Your task to perform on an android device: refresh tabs in the chrome app Image 0: 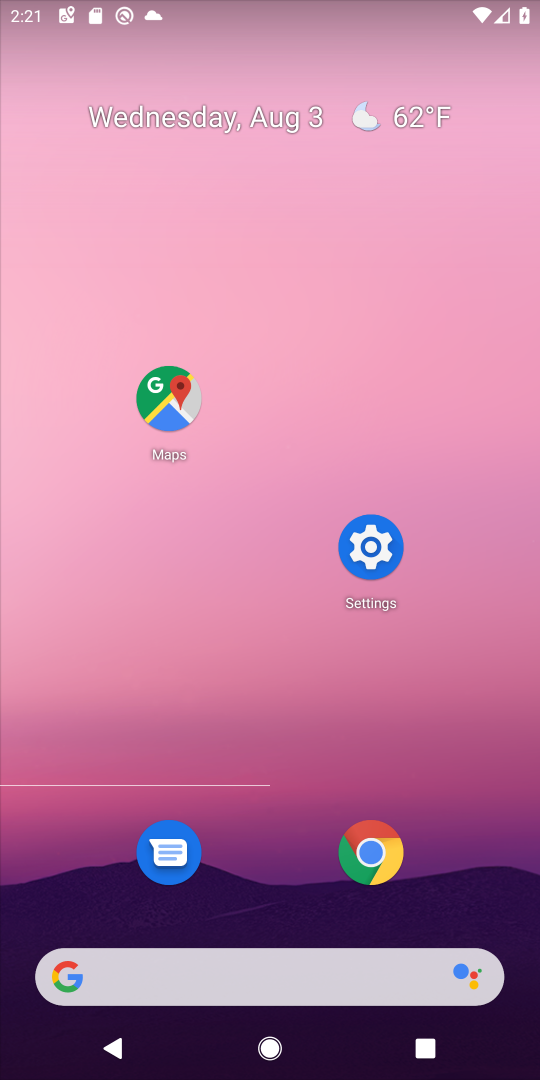
Step 0: press home button
Your task to perform on an android device: refresh tabs in the chrome app Image 1: 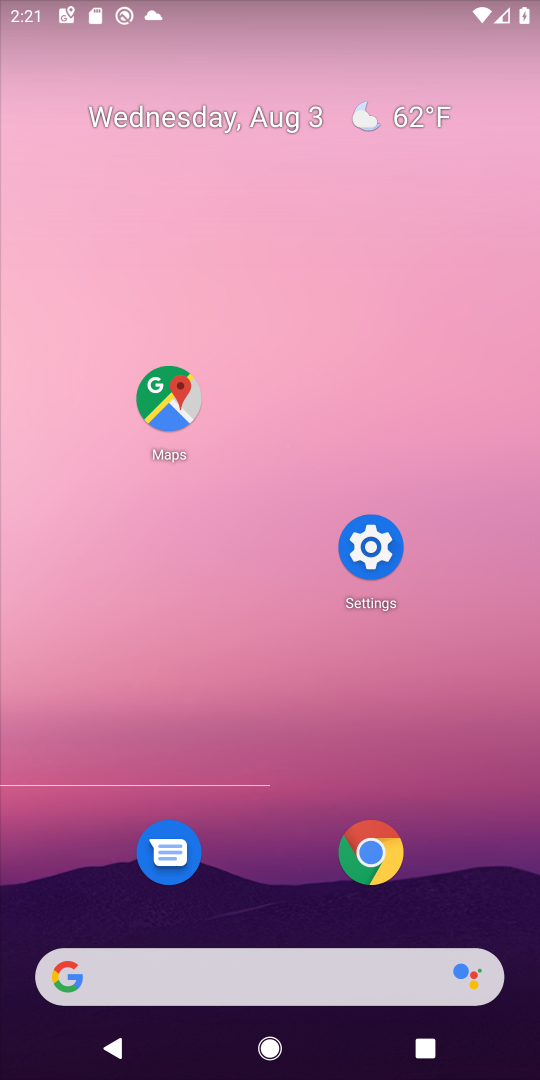
Step 1: click (374, 848)
Your task to perform on an android device: refresh tabs in the chrome app Image 2: 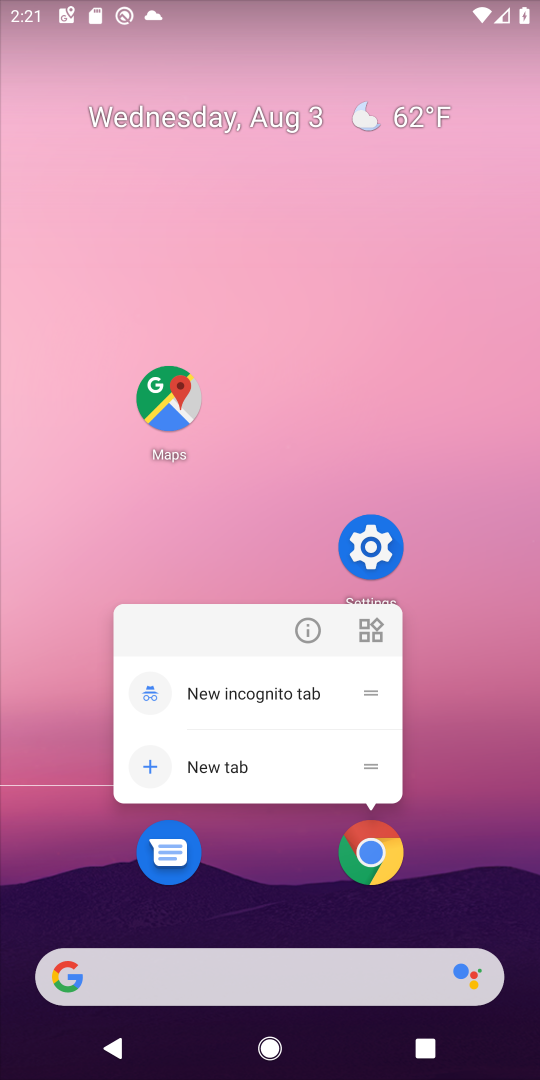
Step 2: click (374, 855)
Your task to perform on an android device: refresh tabs in the chrome app Image 3: 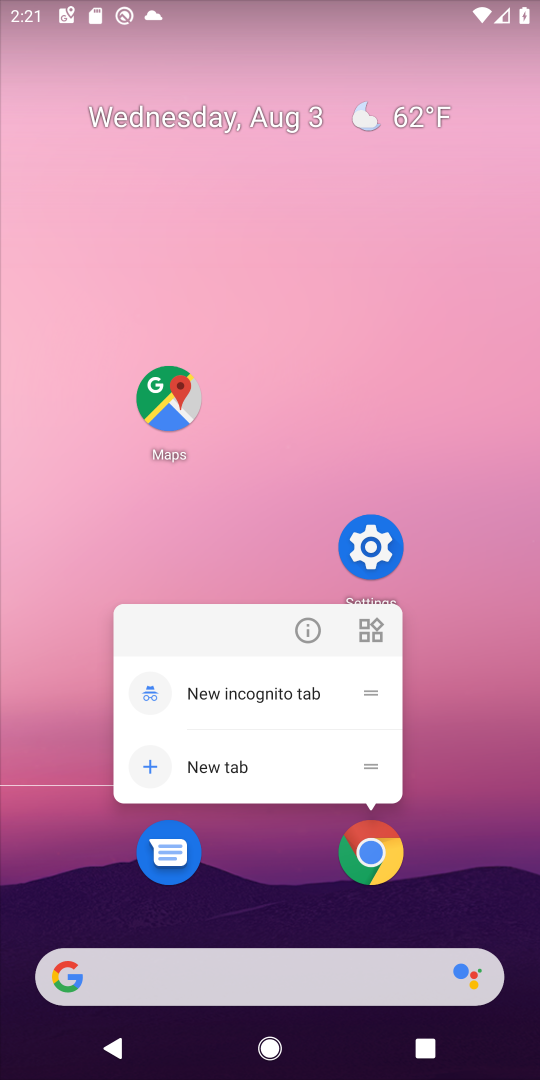
Step 3: click (374, 855)
Your task to perform on an android device: refresh tabs in the chrome app Image 4: 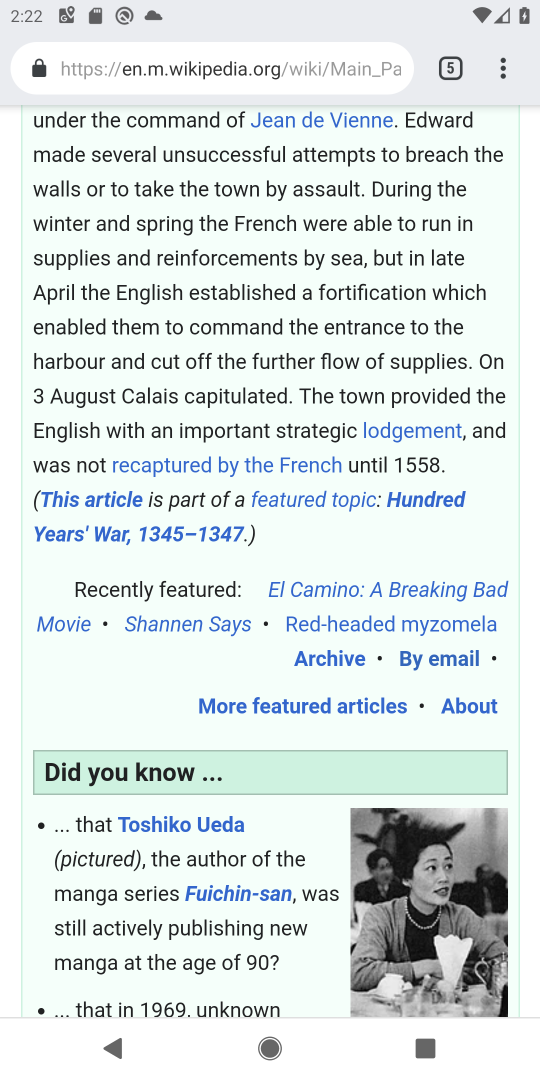
Step 4: click (501, 71)
Your task to perform on an android device: refresh tabs in the chrome app Image 5: 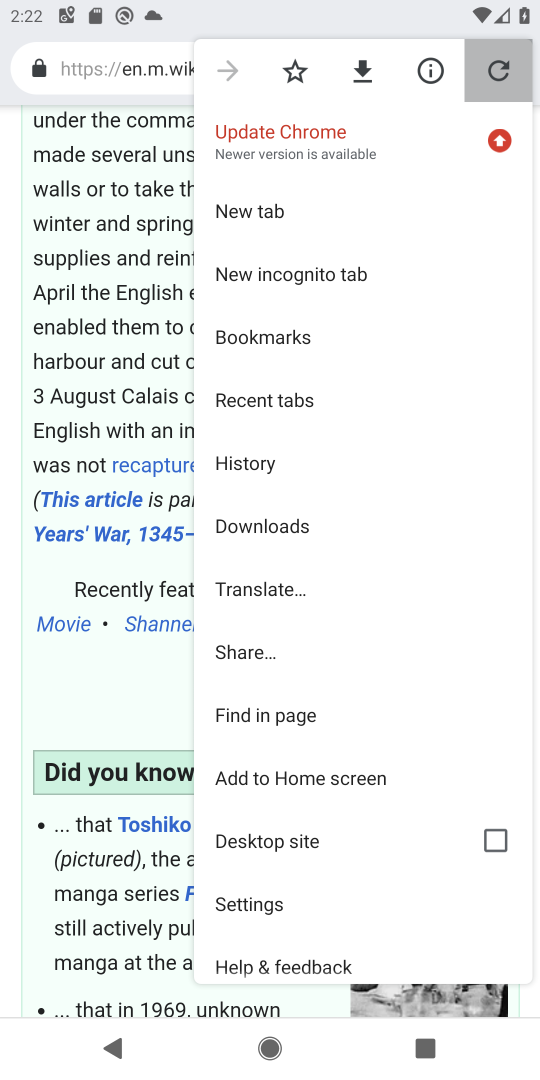
Step 5: click (496, 70)
Your task to perform on an android device: refresh tabs in the chrome app Image 6: 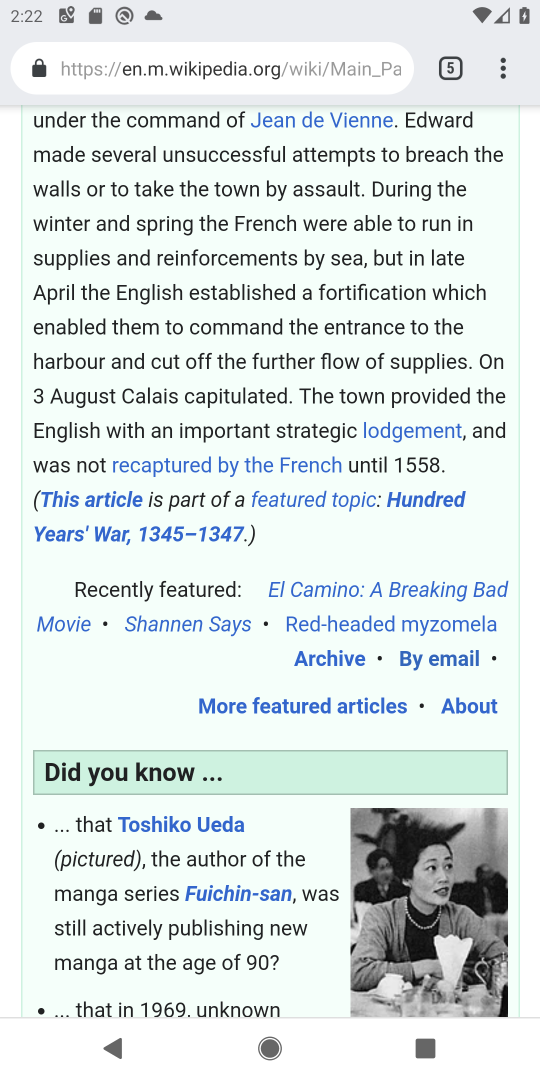
Step 6: task complete